Your task to perform on an android device: Search for Italian restaurants on Maps Image 0: 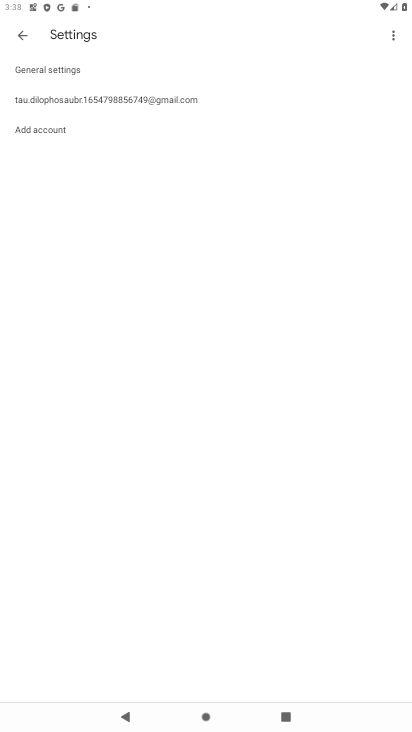
Step 0: press home button
Your task to perform on an android device: Search for Italian restaurants on Maps Image 1: 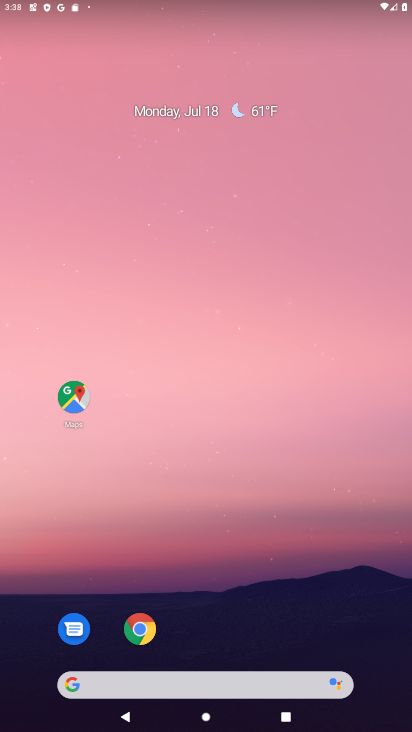
Step 1: click (62, 398)
Your task to perform on an android device: Search for Italian restaurants on Maps Image 2: 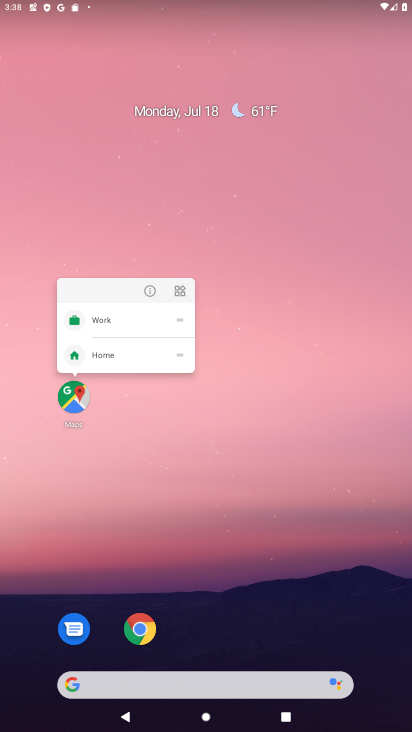
Step 2: click (62, 398)
Your task to perform on an android device: Search for Italian restaurants on Maps Image 3: 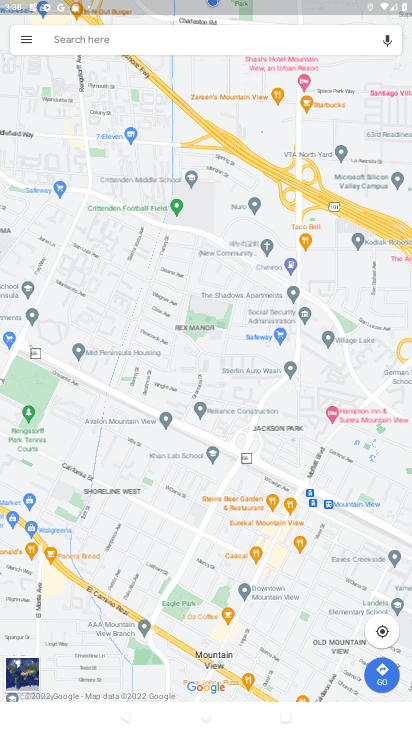
Step 3: click (118, 33)
Your task to perform on an android device: Search for Italian restaurants on Maps Image 4: 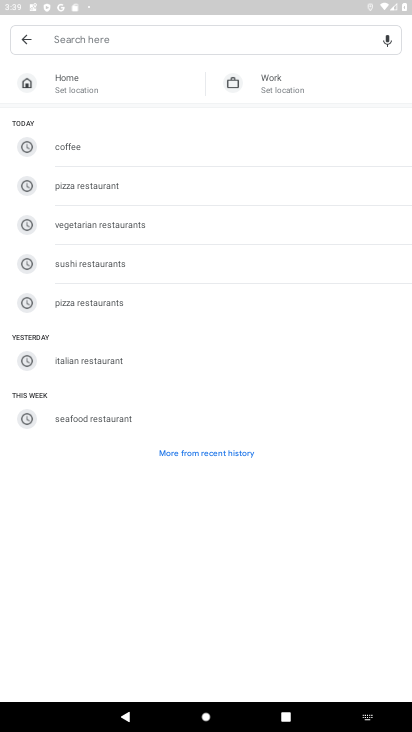
Step 4: click (84, 358)
Your task to perform on an android device: Search for Italian restaurants on Maps Image 5: 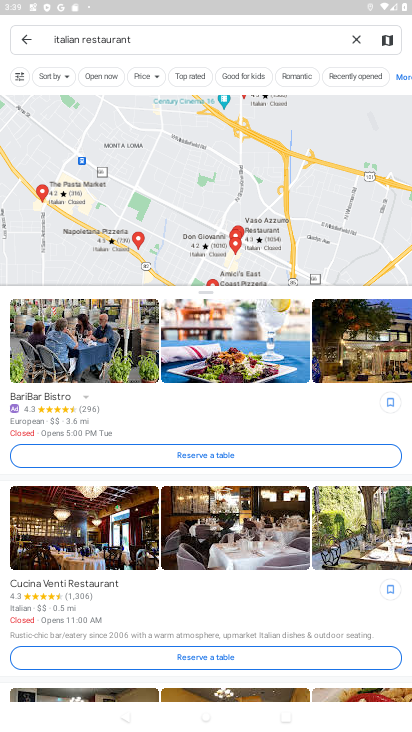
Step 5: task complete